Your task to perform on an android device: read, delete, or share a saved page in the chrome app Image 0: 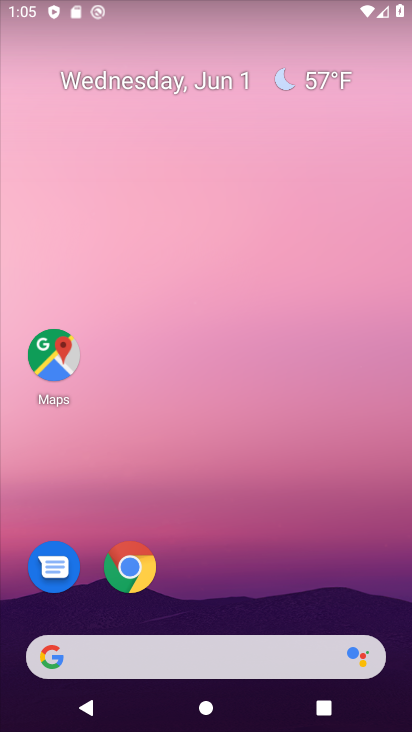
Step 0: click (149, 578)
Your task to perform on an android device: read, delete, or share a saved page in the chrome app Image 1: 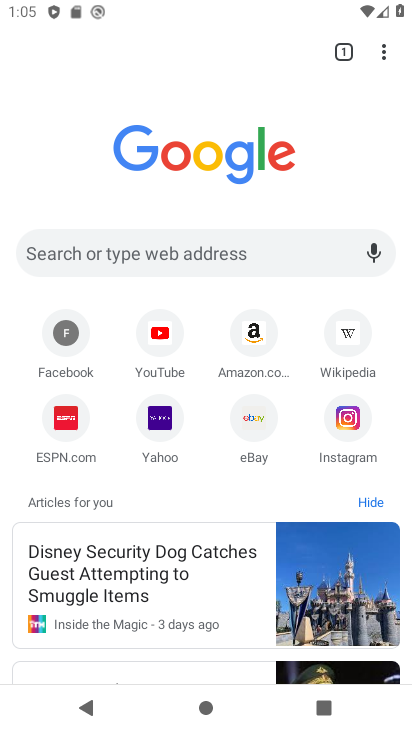
Step 1: click (382, 54)
Your task to perform on an android device: read, delete, or share a saved page in the chrome app Image 2: 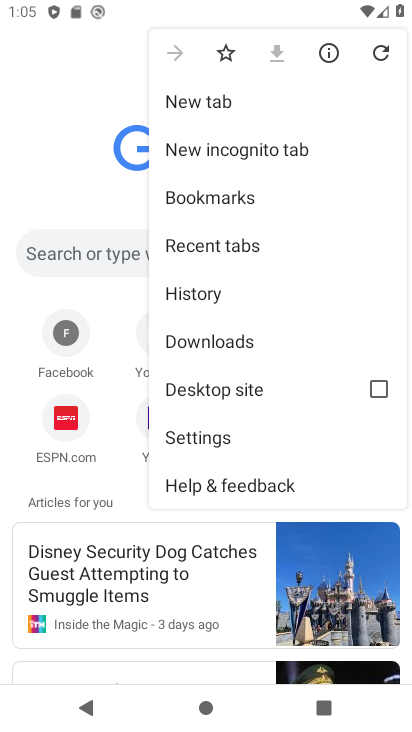
Step 2: click (229, 353)
Your task to perform on an android device: read, delete, or share a saved page in the chrome app Image 3: 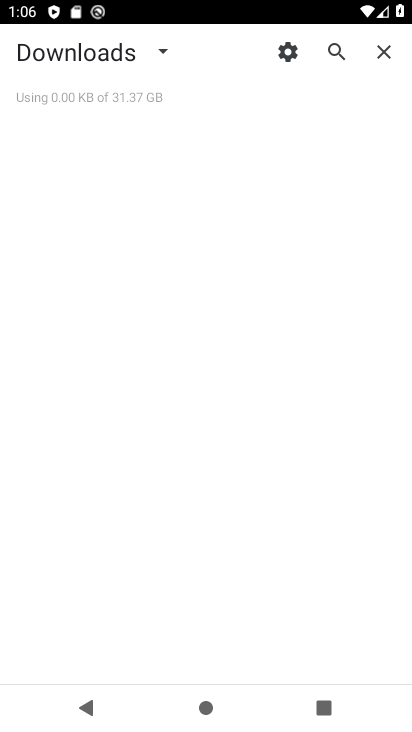
Step 3: task complete